Your task to perform on an android device: empty trash in google photos Image 0: 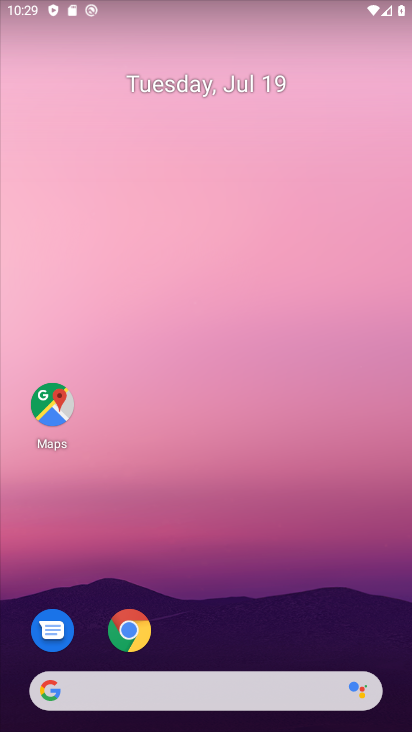
Step 0: drag from (224, 666) to (167, 238)
Your task to perform on an android device: empty trash in google photos Image 1: 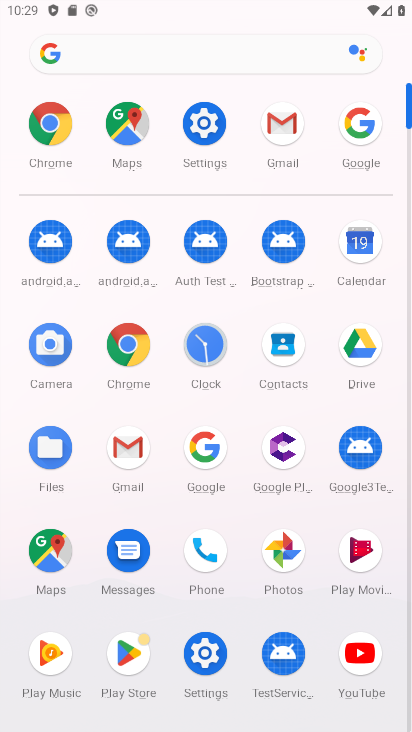
Step 1: click (280, 549)
Your task to perform on an android device: empty trash in google photos Image 2: 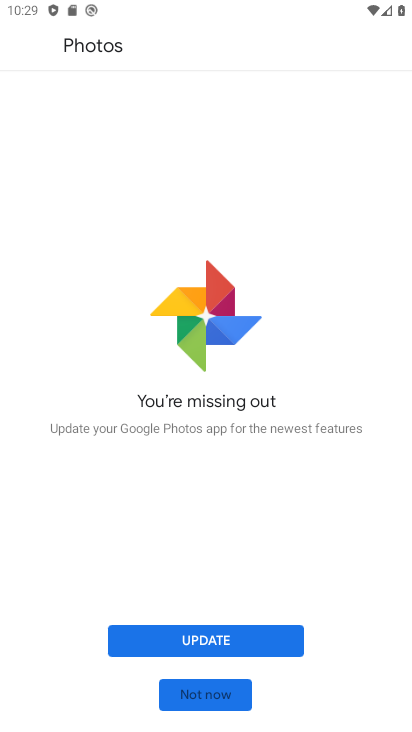
Step 2: click (188, 637)
Your task to perform on an android device: empty trash in google photos Image 3: 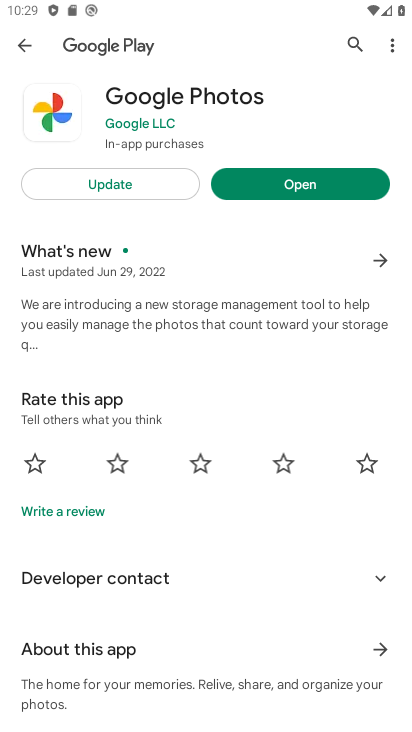
Step 3: click (125, 185)
Your task to perform on an android device: empty trash in google photos Image 4: 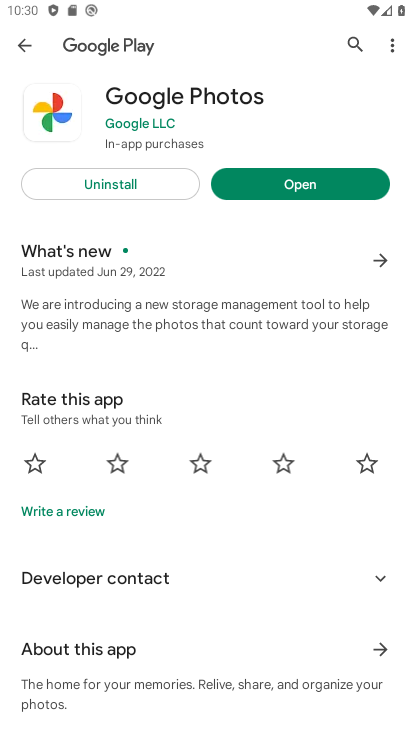
Step 4: click (276, 175)
Your task to perform on an android device: empty trash in google photos Image 5: 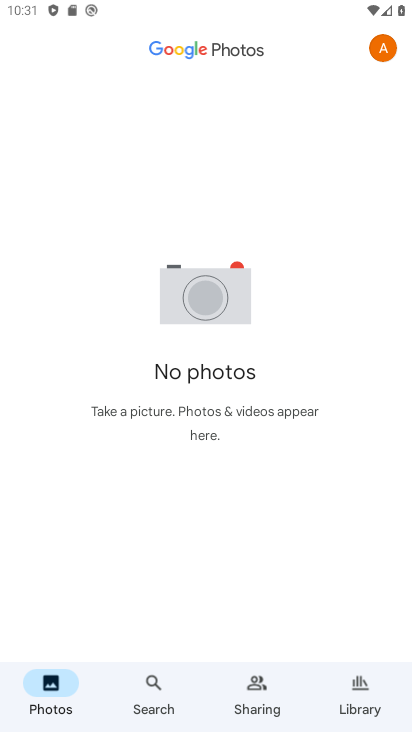
Step 5: click (377, 49)
Your task to perform on an android device: empty trash in google photos Image 6: 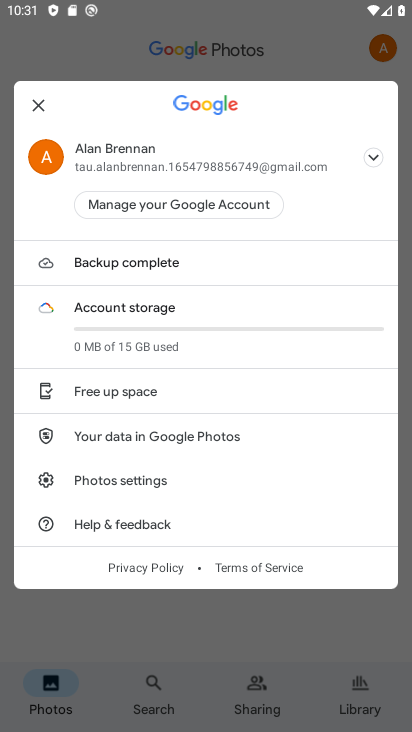
Step 6: click (96, 480)
Your task to perform on an android device: empty trash in google photos Image 7: 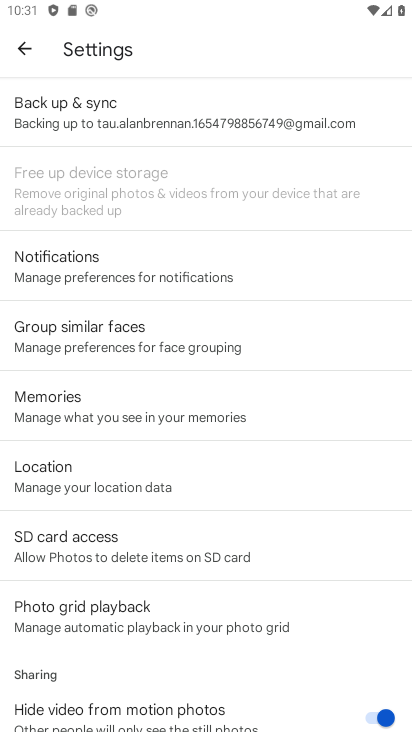
Step 7: task complete